Your task to perform on an android device: Open Youtube and go to the subscriptions tab Image 0: 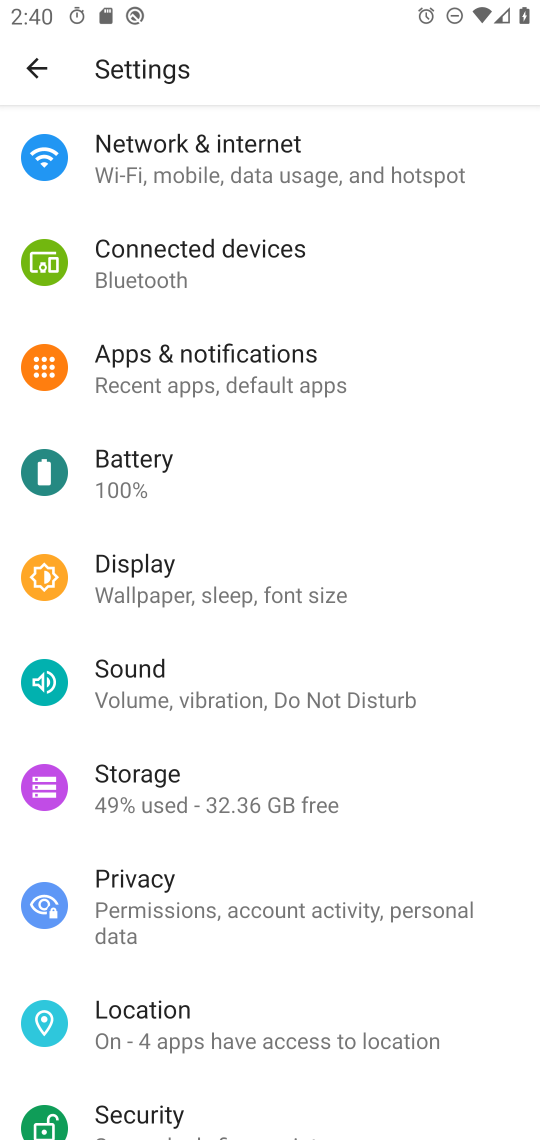
Step 0: press home button
Your task to perform on an android device: Open Youtube and go to the subscriptions tab Image 1: 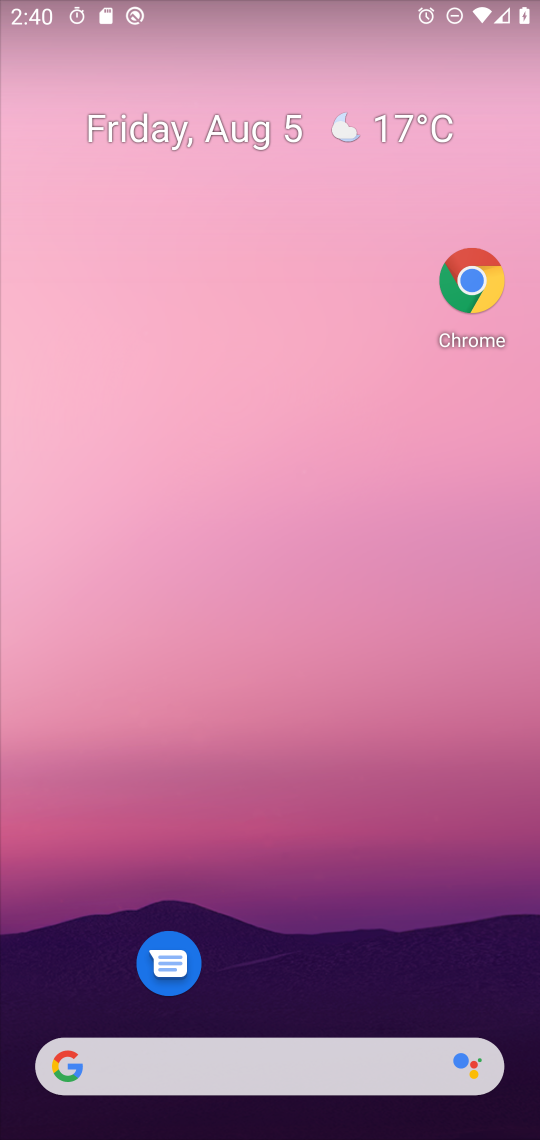
Step 1: drag from (347, 906) to (308, 262)
Your task to perform on an android device: Open Youtube and go to the subscriptions tab Image 2: 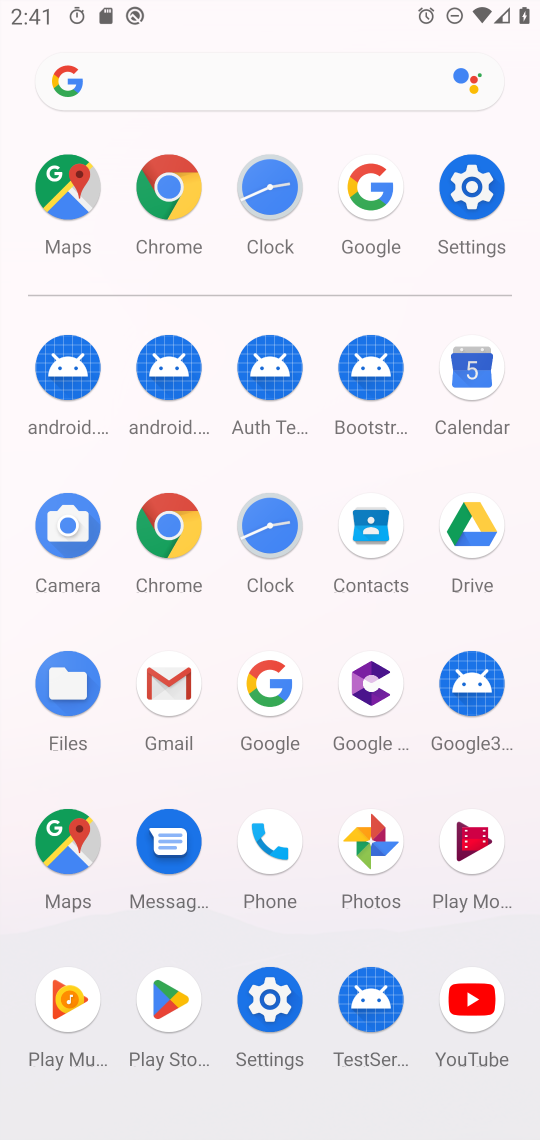
Step 2: click (454, 1015)
Your task to perform on an android device: Open Youtube and go to the subscriptions tab Image 3: 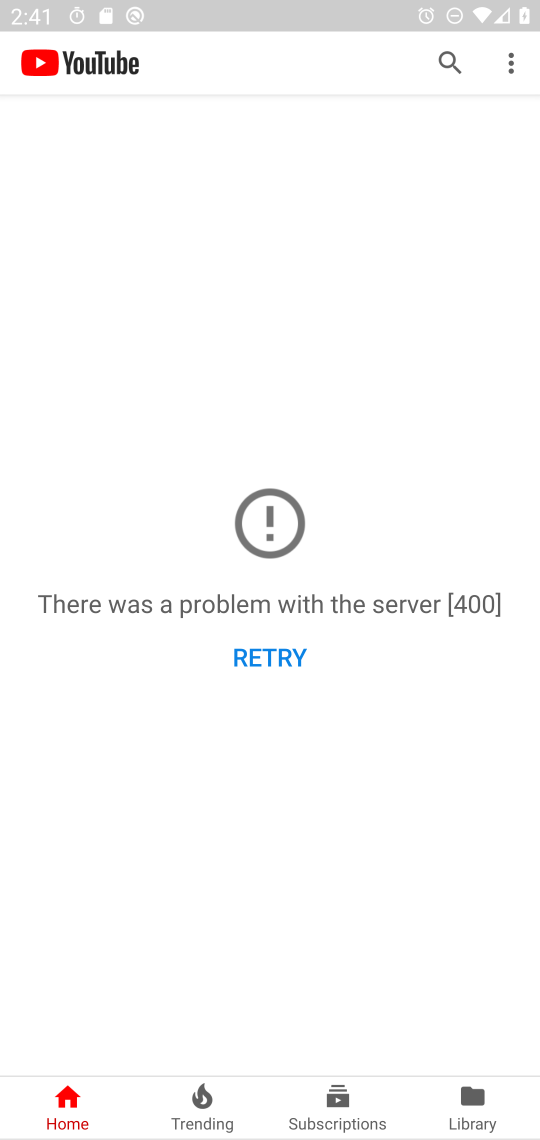
Step 3: click (334, 1113)
Your task to perform on an android device: Open Youtube and go to the subscriptions tab Image 4: 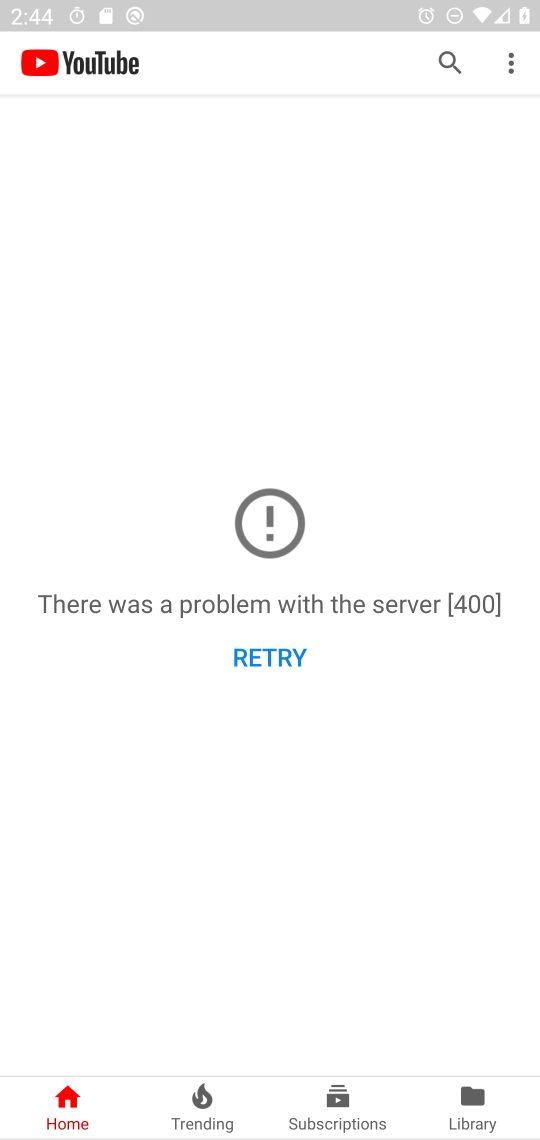
Step 4: click (328, 1088)
Your task to perform on an android device: Open Youtube and go to the subscriptions tab Image 5: 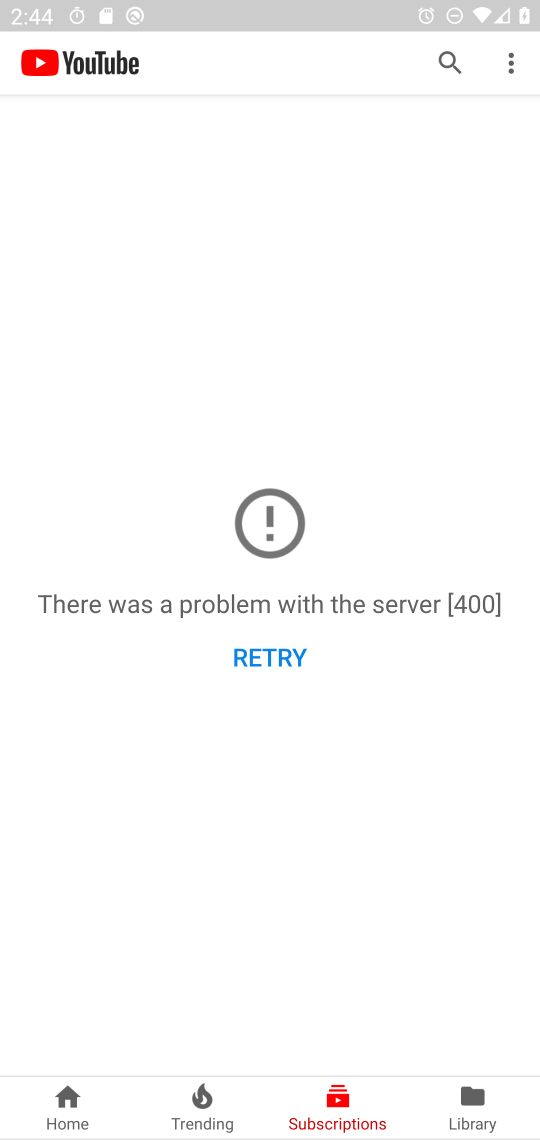
Step 5: task complete